Your task to perform on an android device: show emergency info Image 0: 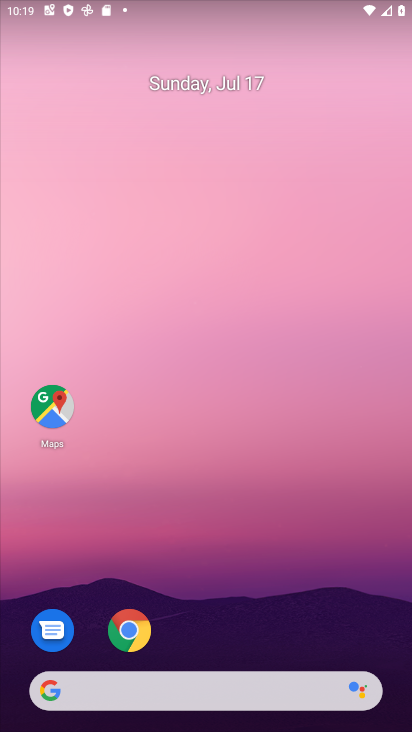
Step 0: drag from (307, 643) to (287, 7)
Your task to perform on an android device: show emergency info Image 1: 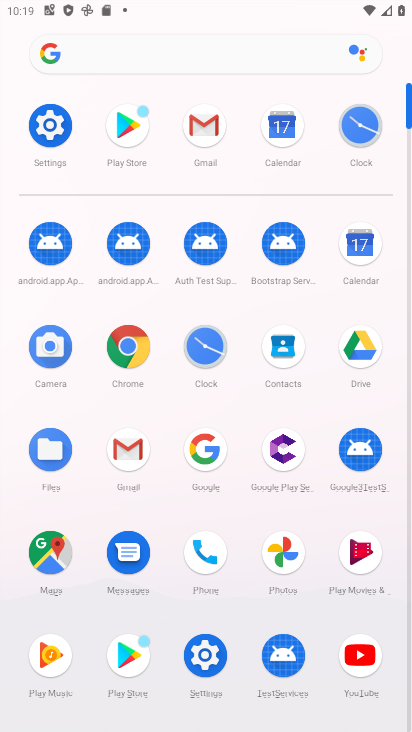
Step 1: click (65, 158)
Your task to perform on an android device: show emergency info Image 2: 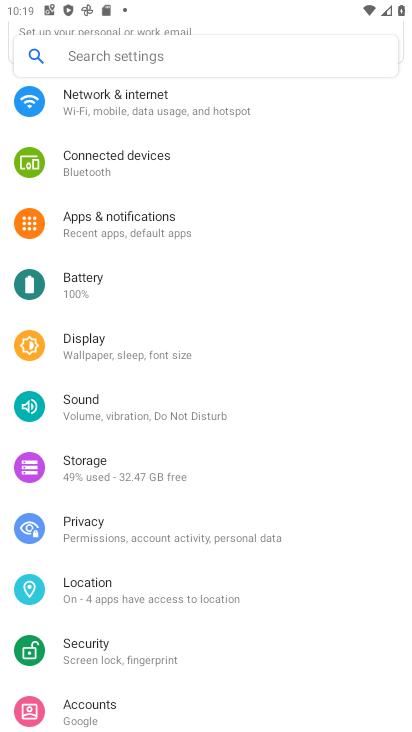
Step 2: drag from (230, 631) to (245, 133)
Your task to perform on an android device: show emergency info Image 3: 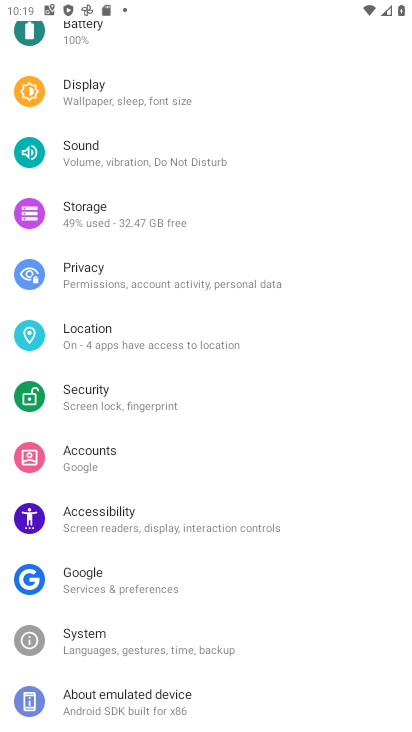
Step 3: click (249, 684)
Your task to perform on an android device: show emergency info Image 4: 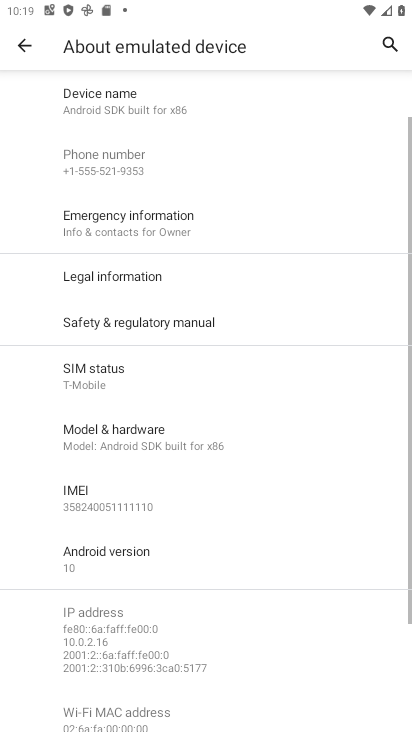
Step 4: click (190, 223)
Your task to perform on an android device: show emergency info Image 5: 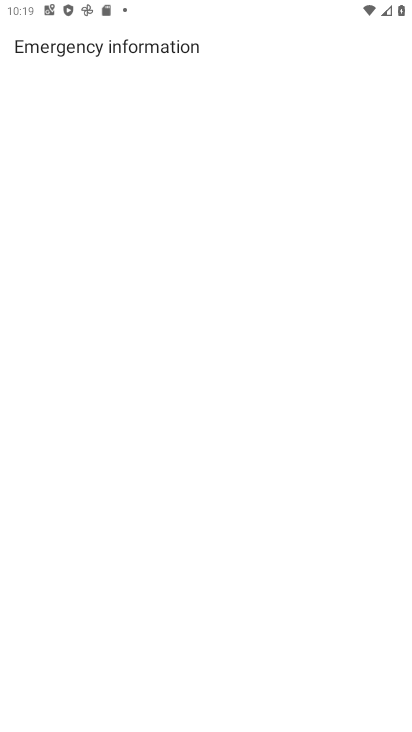
Step 5: task complete